Your task to perform on an android device: set the timer Image 0: 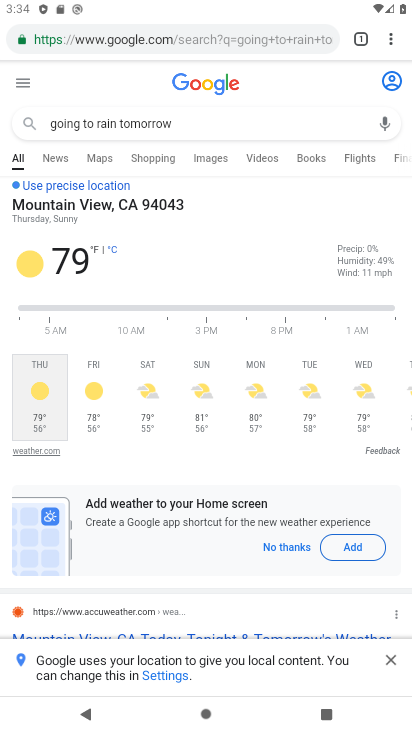
Step 0: press home button
Your task to perform on an android device: set the timer Image 1: 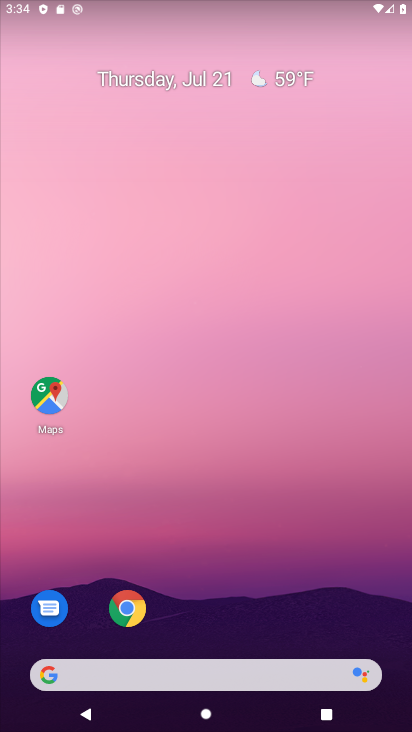
Step 1: drag from (252, 668) to (275, 26)
Your task to perform on an android device: set the timer Image 2: 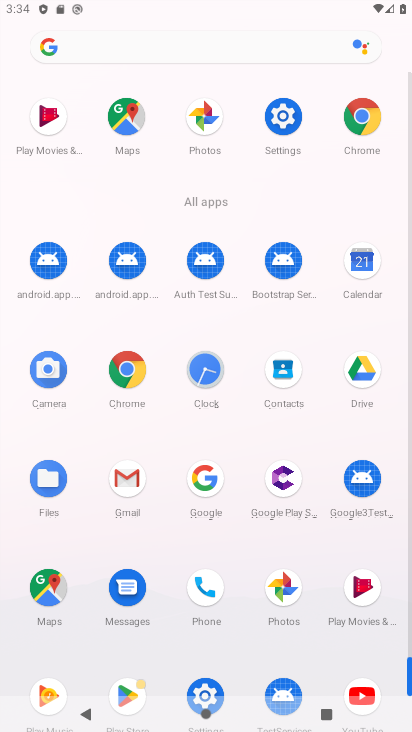
Step 2: click (206, 374)
Your task to perform on an android device: set the timer Image 3: 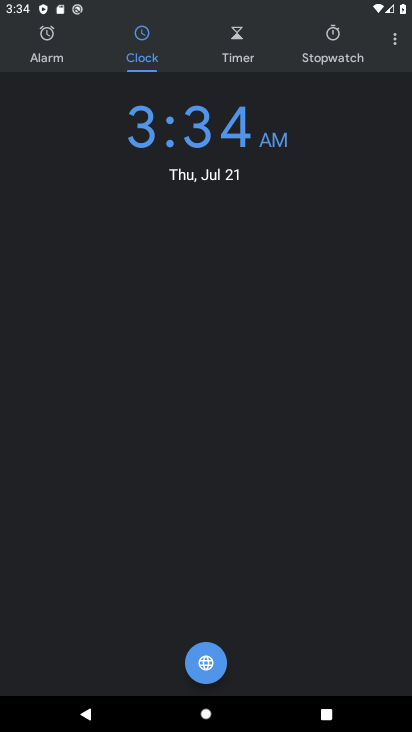
Step 3: click (248, 37)
Your task to perform on an android device: set the timer Image 4: 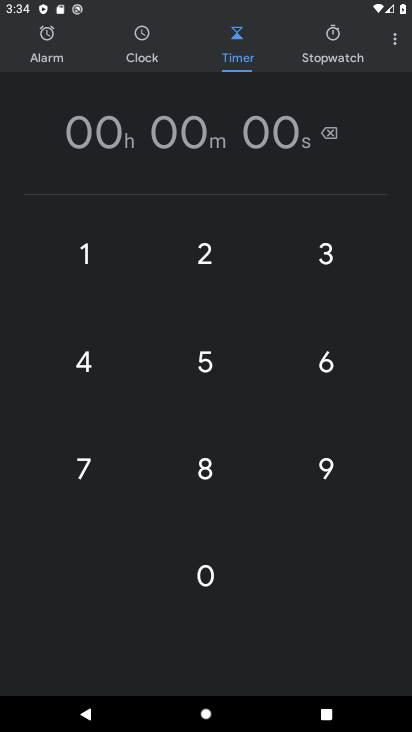
Step 4: click (310, 470)
Your task to perform on an android device: set the timer Image 5: 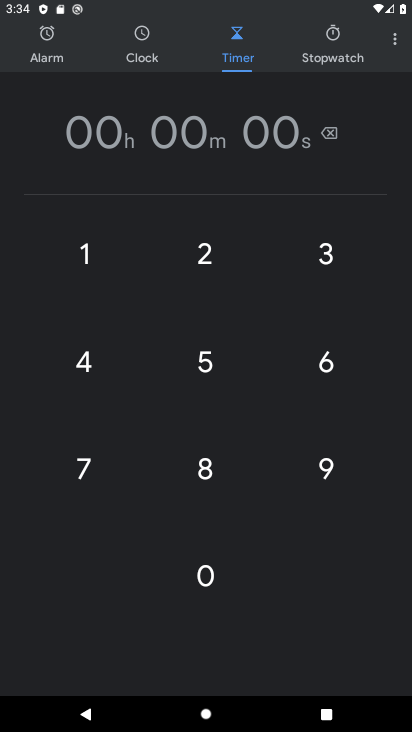
Step 5: click (311, 470)
Your task to perform on an android device: set the timer Image 6: 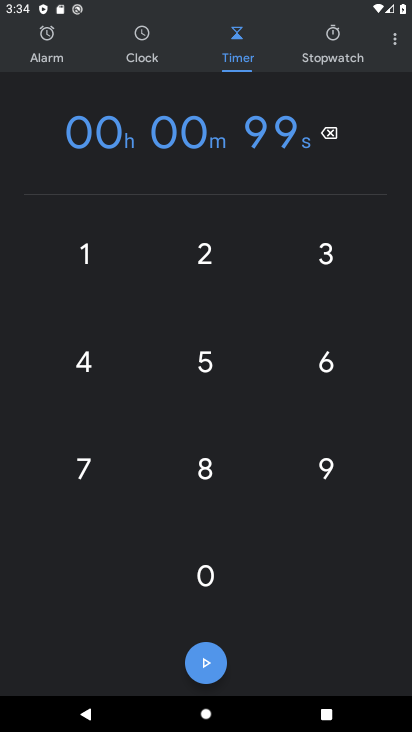
Step 6: click (321, 472)
Your task to perform on an android device: set the timer Image 7: 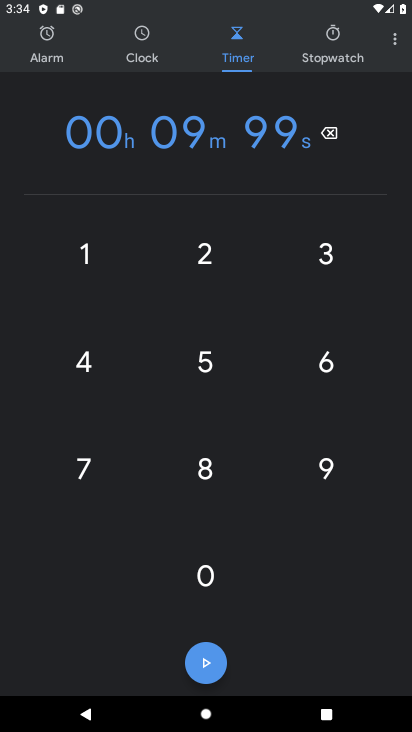
Step 7: click (321, 472)
Your task to perform on an android device: set the timer Image 8: 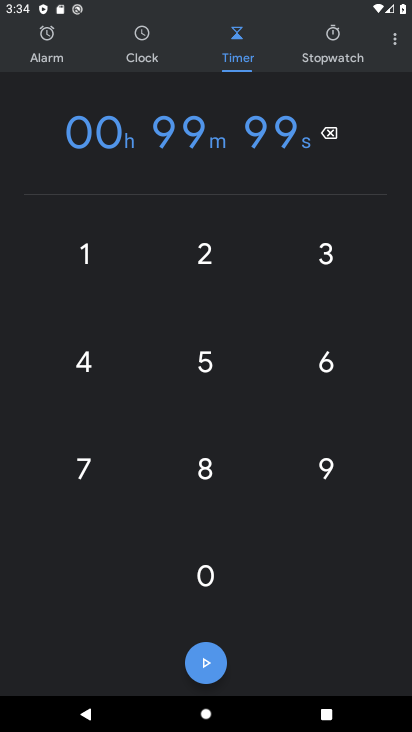
Step 8: click (321, 472)
Your task to perform on an android device: set the timer Image 9: 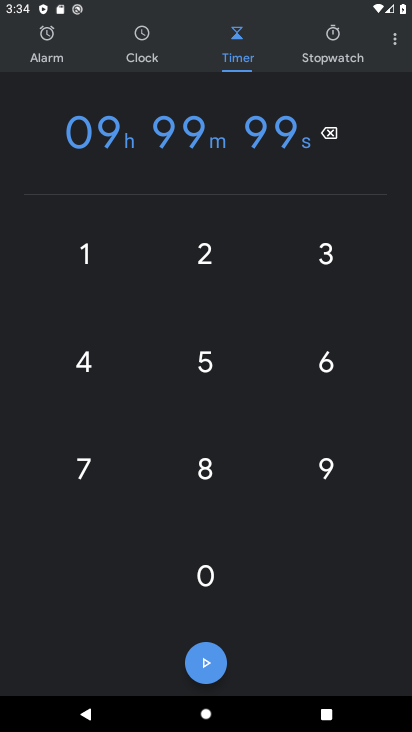
Step 9: click (321, 472)
Your task to perform on an android device: set the timer Image 10: 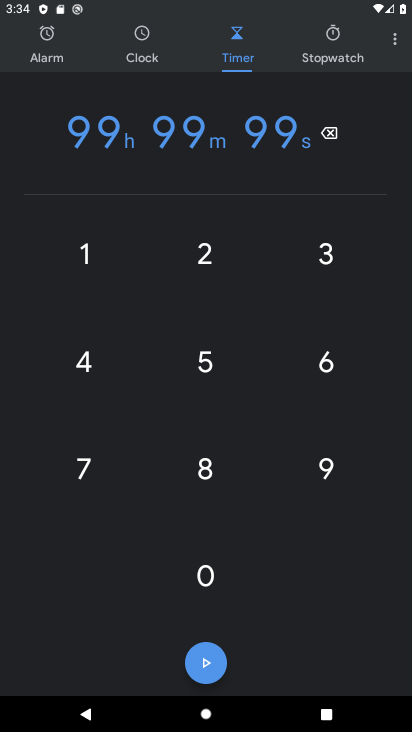
Step 10: click (207, 660)
Your task to perform on an android device: set the timer Image 11: 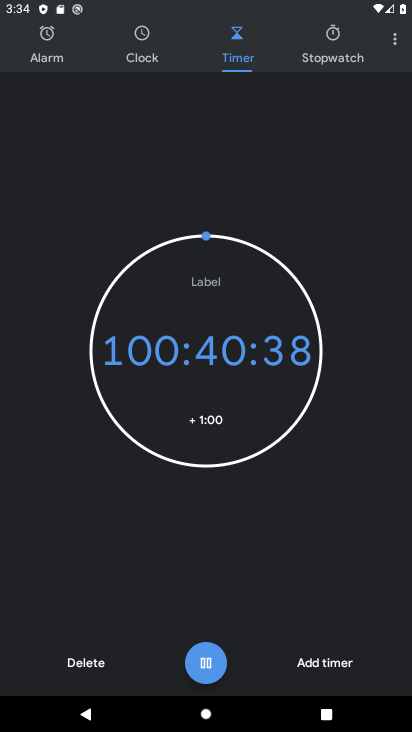
Step 11: task complete